Your task to perform on an android device: Open Android settings Image 0: 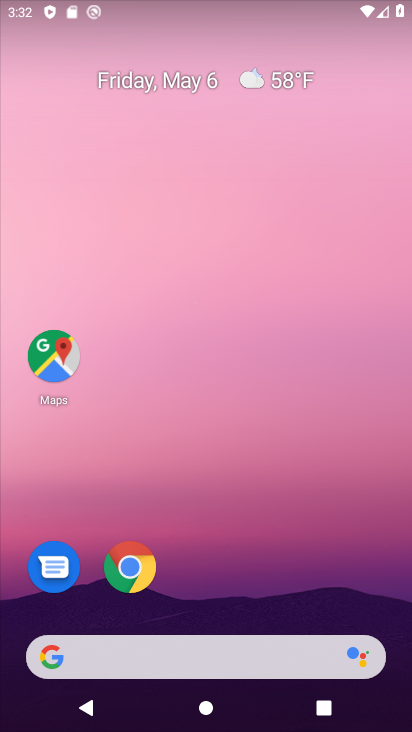
Step 0: drag from (230, 636) to (222, 153)
Your task to perform on an android device: Open Android settings Image 1: 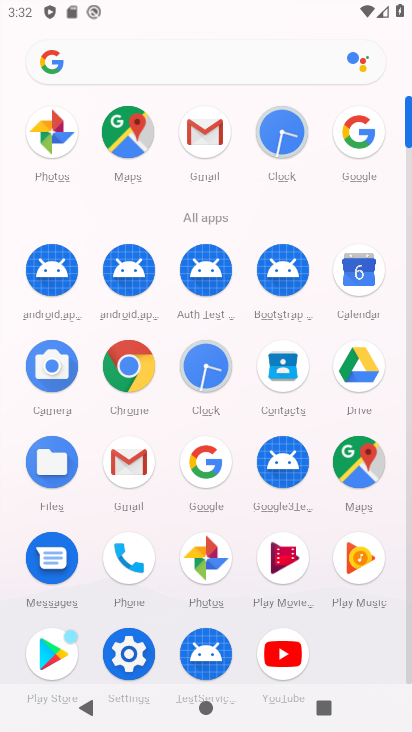
Step 1: click (138, 660)
Your task to perform on an android device: Open Android settings Image 2: 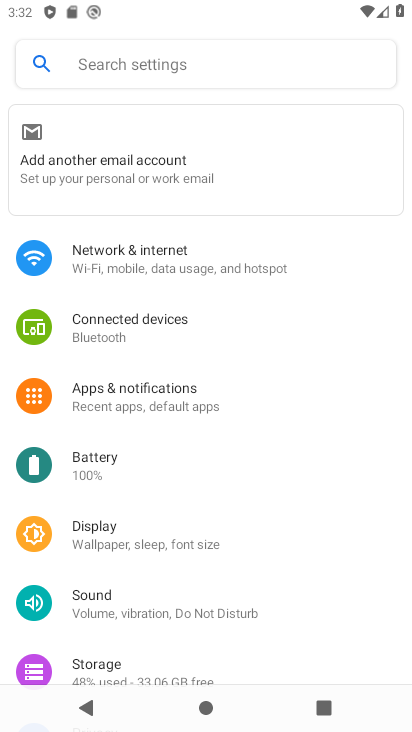
Step 2: drag from (187, 612) to (174, 2)
Your task to perform on an android device: Open Android settings Image 3: 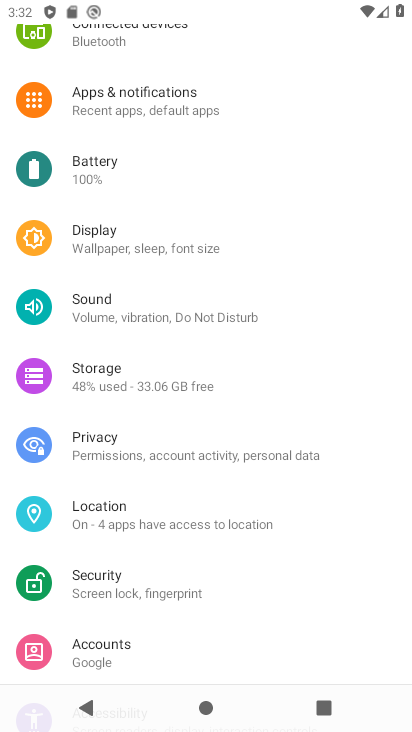
Step 3: drag from (166, 549) to (113, 62)
Your task to perform on an android device: Open Android settings Image 4: 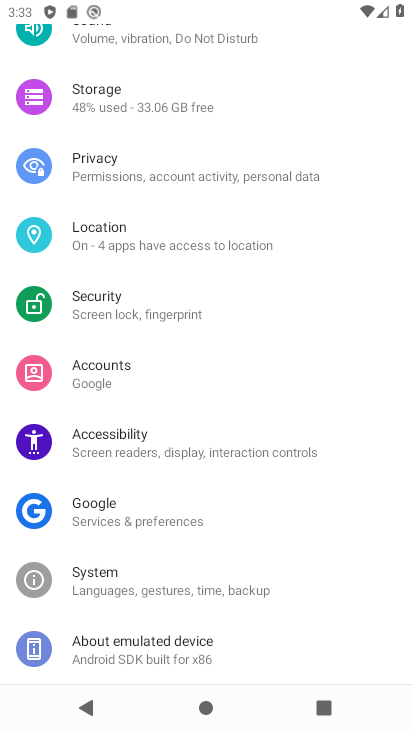
Step 4: click (160, 632)
Your task to perform on an android device: Open Android settings Image 5: 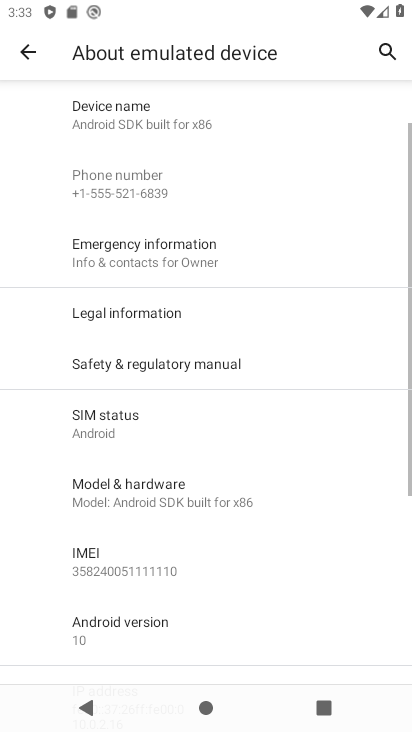
Step 5: task complete